Your task to perform on an android device: turn smart compose on in the gmail app Image 0: 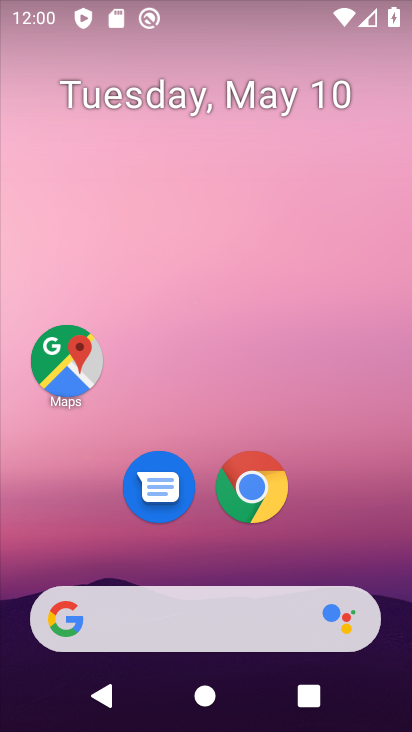
Step 0: drag from (347, 527) to (335, 196)
Your task to perform on an android device: turn smart compose on in the gmail app Image 1: 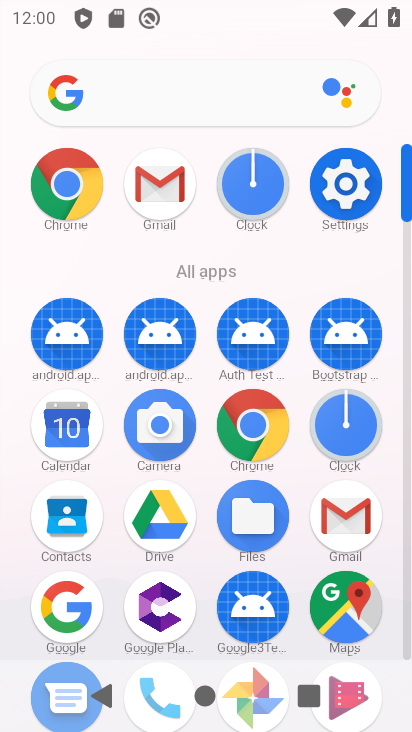
Step 1: click (356, 217)
Your task to perform on an android device: turn smart compose on in the gmail app Image 2: 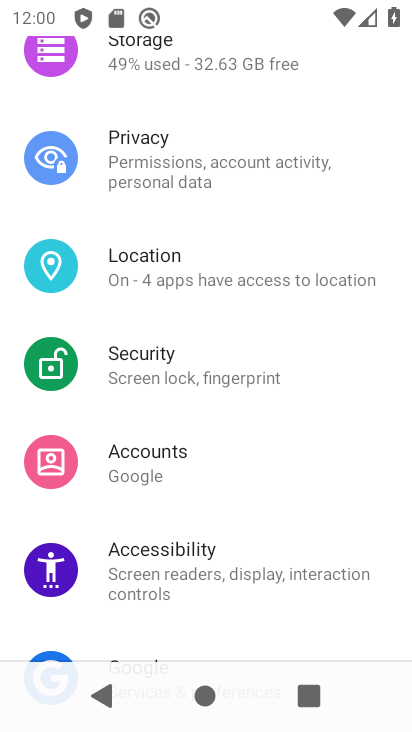
Step 2: press home button
Your task to perform on an android device: turn smart compose on in the gmail app Image 3: 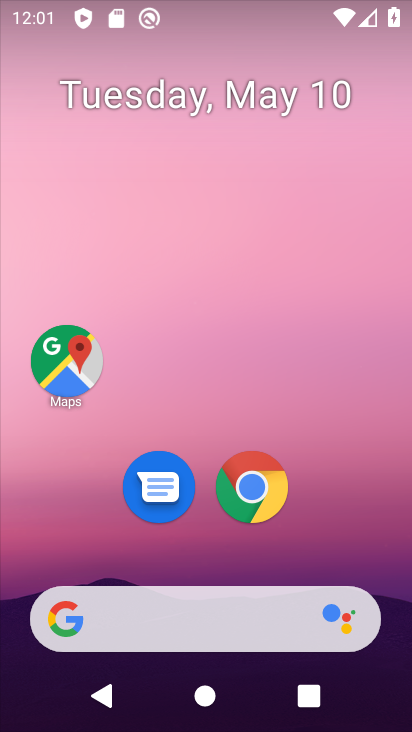
Step 3: drag from (322, 553) to (308, 57)
Your task to perform on an android device: turn smart compose on in the gmail app Image 4: 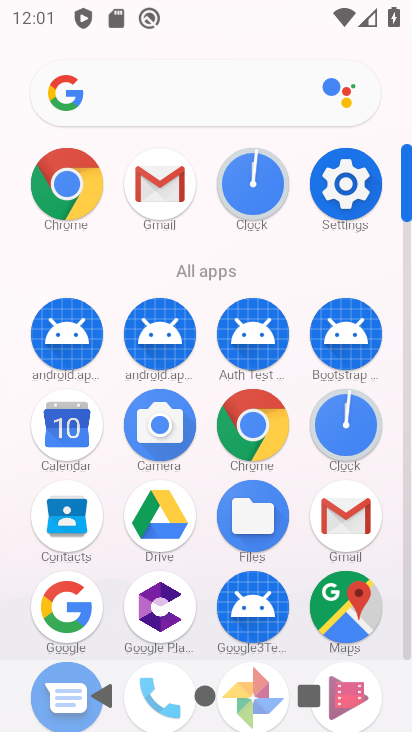
Step 4: click (143, 179)
Your task to perform on an android device: turn smart compose on in the gmail app Image 5: 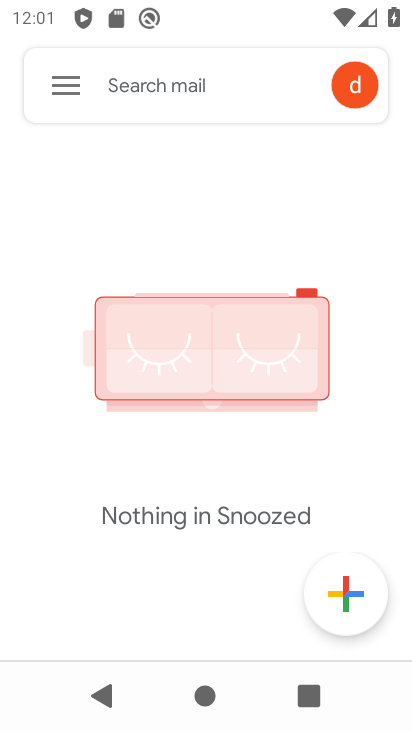
Step 5: click (57, 98)
Your task to perform on an android device: turn smart compose on in the gmail app Image 6: 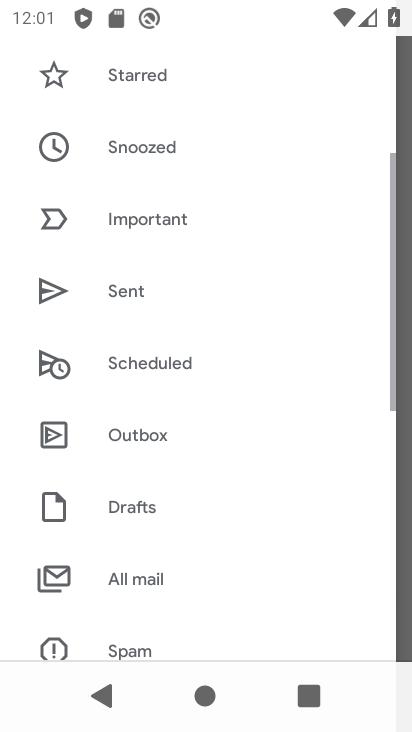
Step 6: drag from (167, 613) to (204, 229)
Your task to perform on an android device: turn smart compose on in the gmail app Image 7: 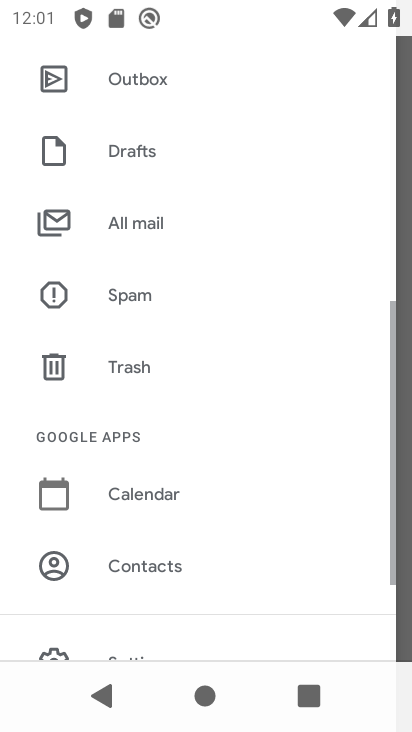
Step 7: click (206, 222)
Your task to perform on an android device: turn smart compose on in the gmail app Image 8: 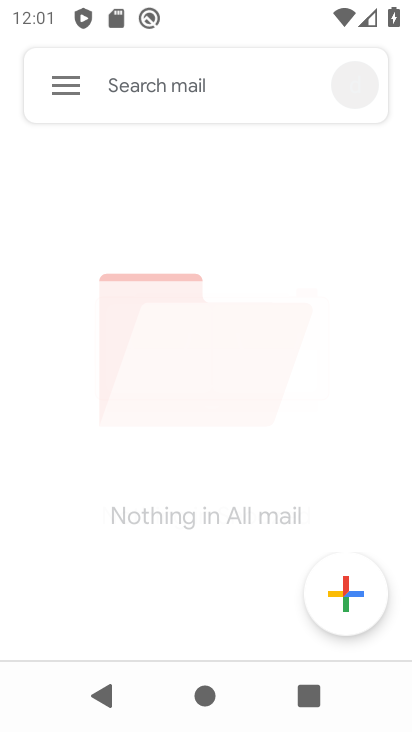
Step 8: click (145, 630)
Your task to perform on an android device: turn smart compose on in the gmail app Image 9: 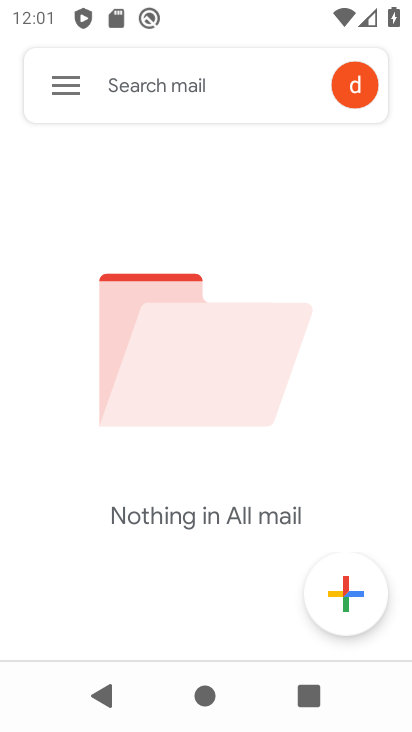
Step 9: click (66, 67)
Your task to perform on an android device: turn smart compose on in the gmail app Image 10: 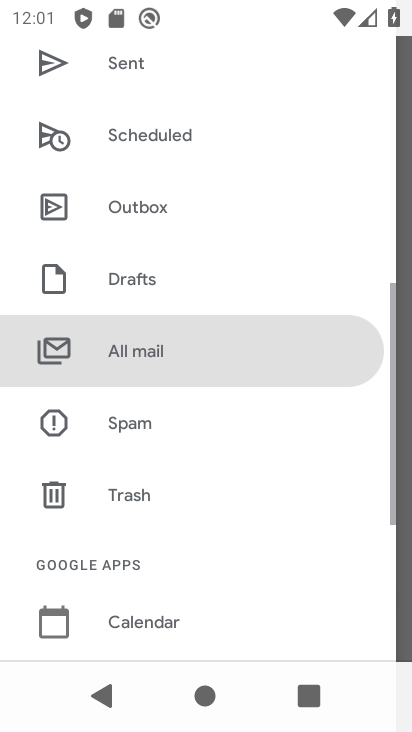
Step 10: drag from (104, 593) to (97, 274)
Your task to perform on an android device: turn smart compose on in the gmail app Image 11: 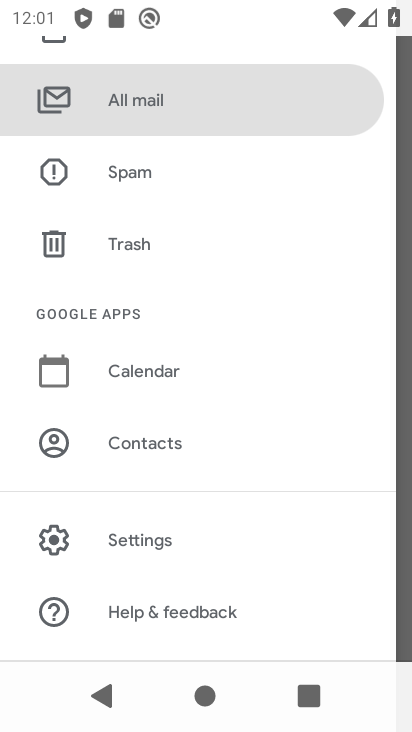
Step 11: click (177, 550)
Your task to perform on an android device: turn smart compose on in the gmail app Image 12: 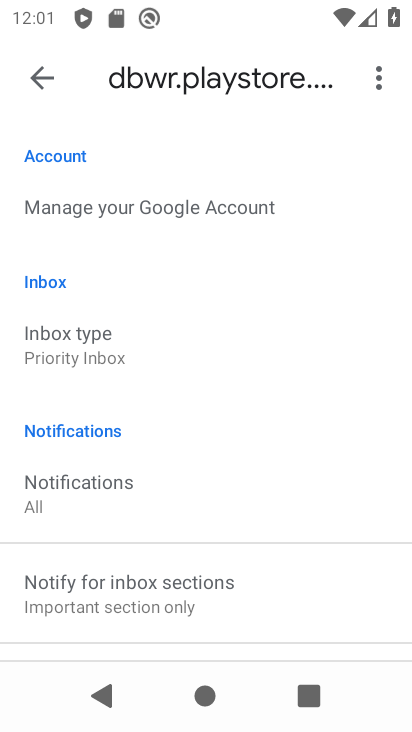
Step 12: drag from (173, 569) to (195, 188)
Your task to perform on an android device: turn smart compose on in the gmail app Image 13: 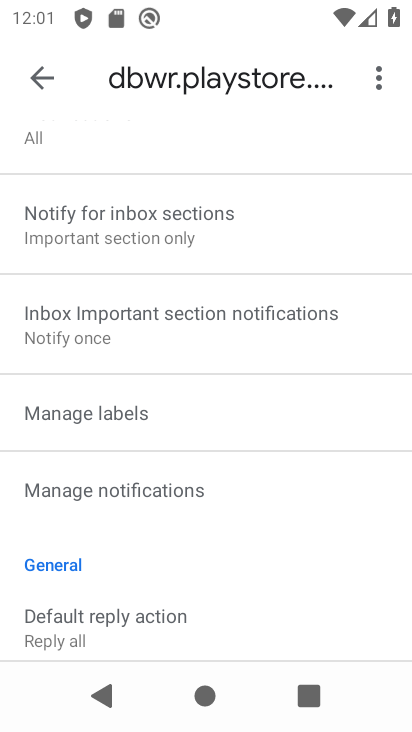
Step 13: drag from (179, 541) to (175, 165)
Your task to perform on an android device: turn smart compose on in the gmail app Image 14: 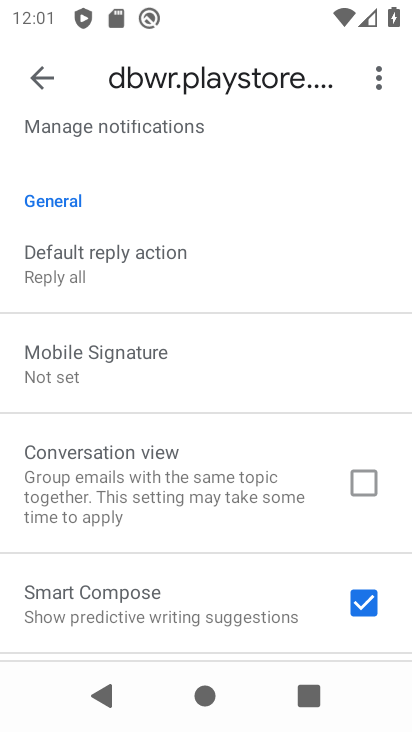
Step 14: click (214, 448)
Your task to perform on an android device: turn smart compose on in the gmail app Image 15: 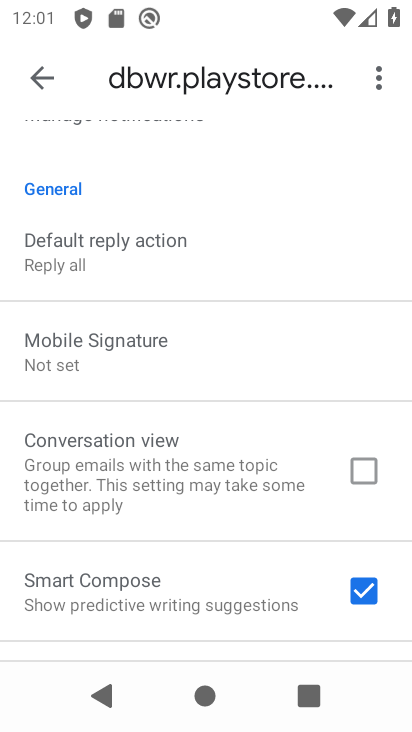
Step 15: task complete